Your task to perform on an android device: What's the news in Malaysia? Image 0: 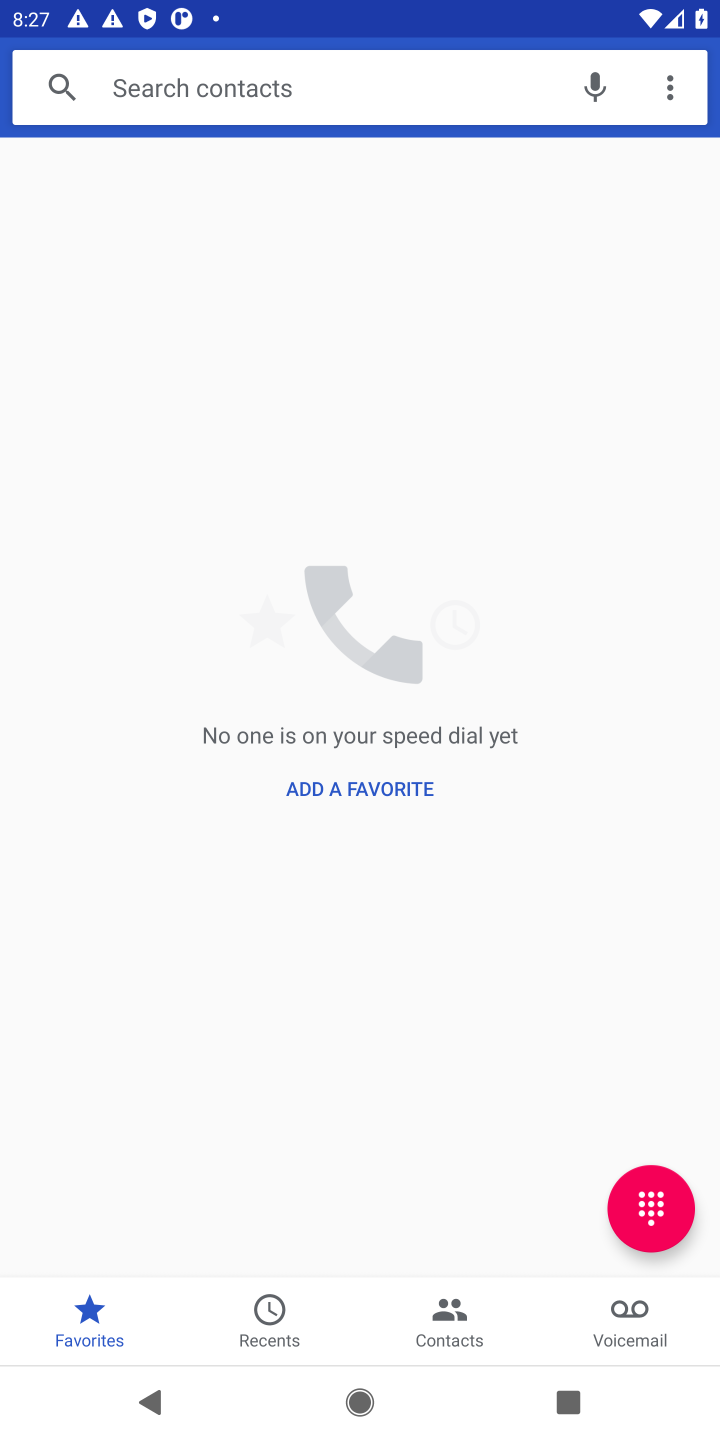
Step 0: press home button
Your task to perform on an android device: What's the news in Malaysia? Image 1: 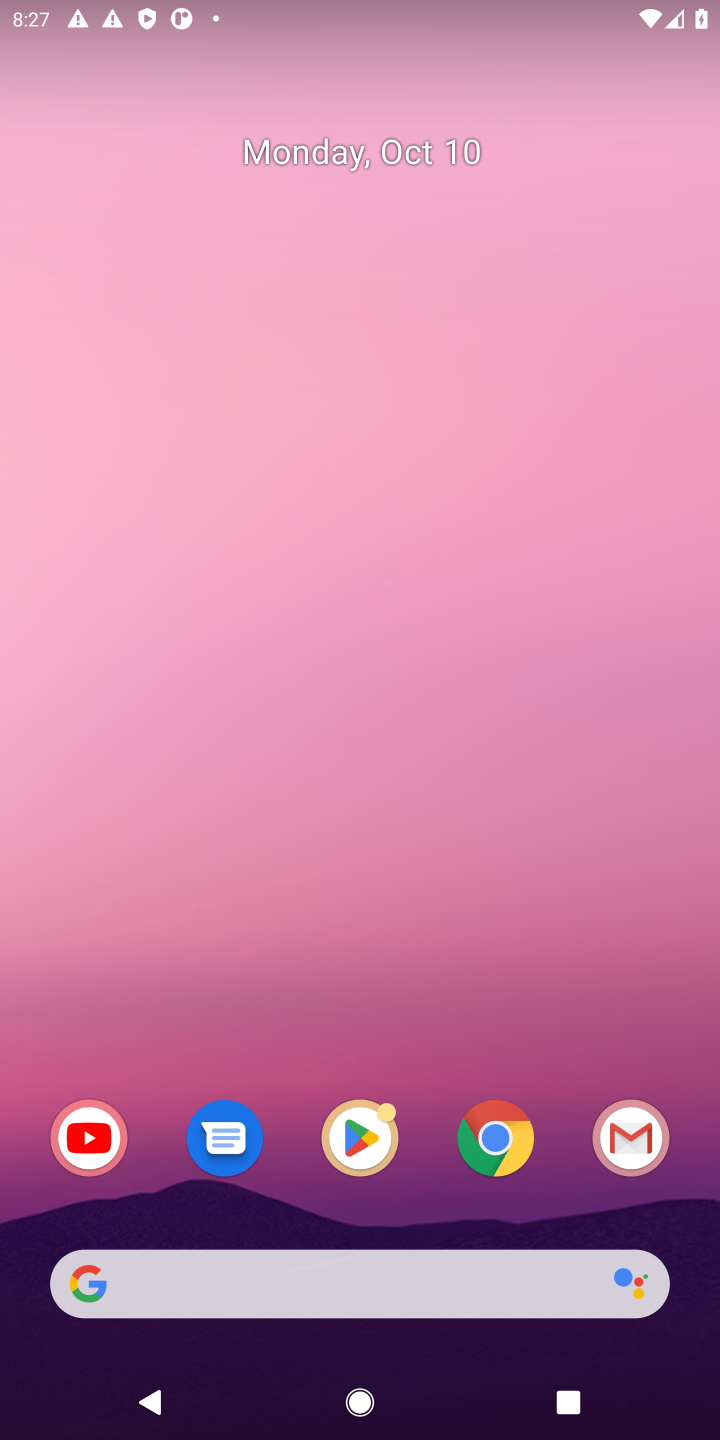
Step 1: click (497, 1145)
Your task to perform on an android device: What's the news in Malaysia? Image 2: 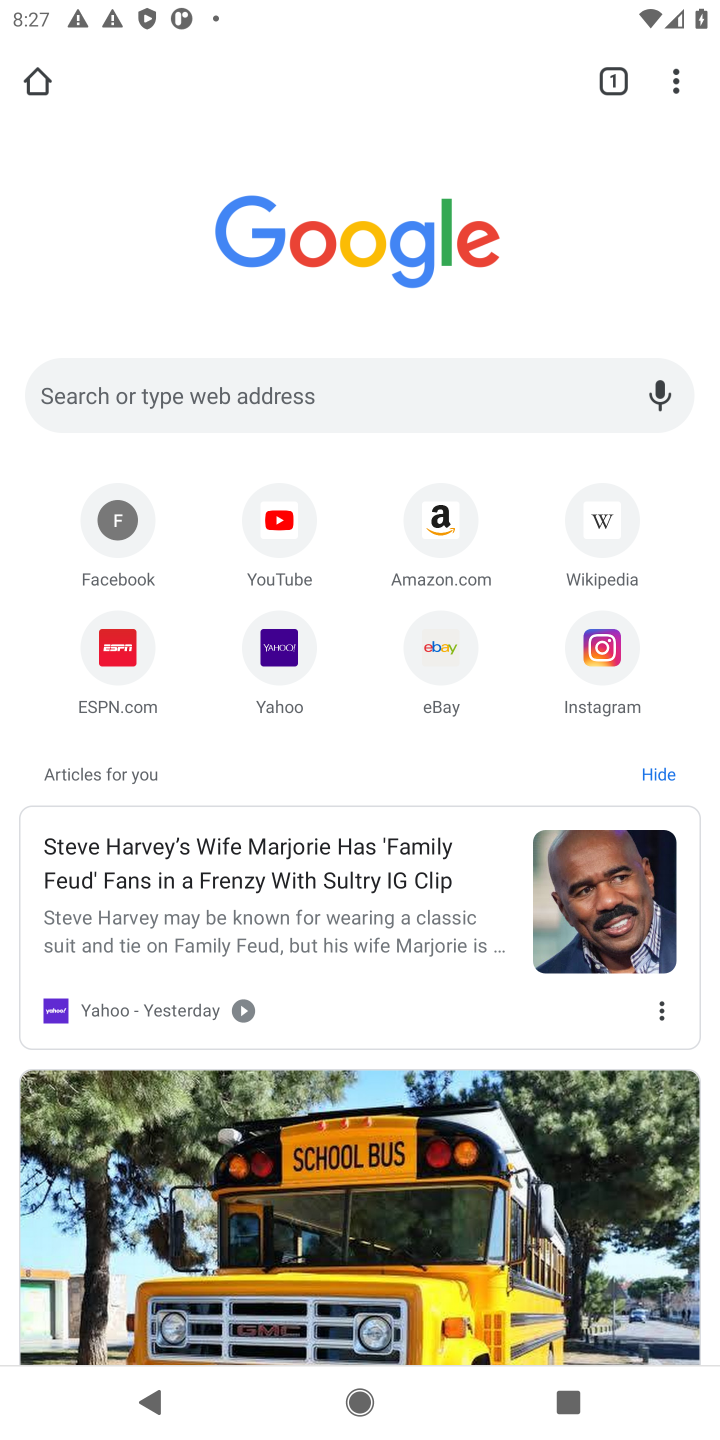
Step 2: click (324, 378)
Your task to perform on an android device: What's the news in Malaysia? Image 3: 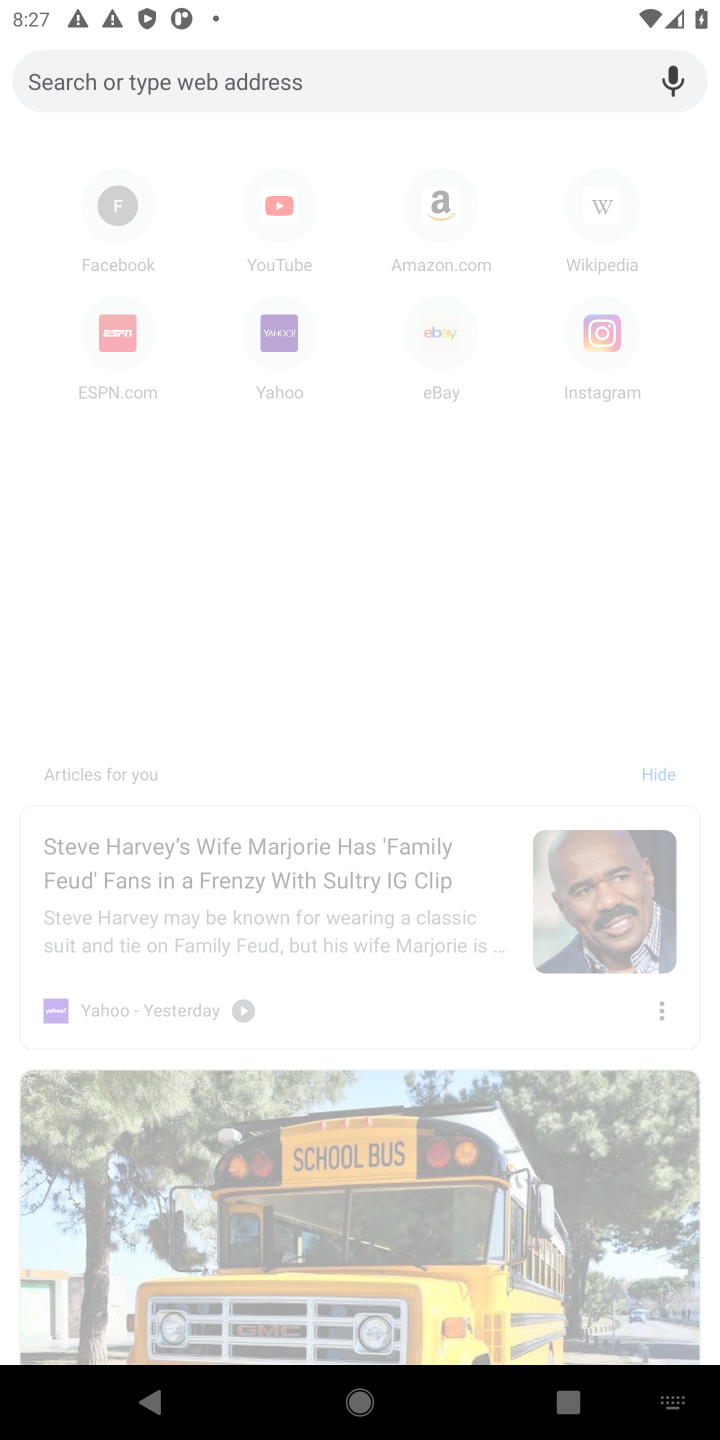
Step 3: type "What's the news in Malaysia"
Your task to perform on an android device: What's the news in Malaysia? Image 4: 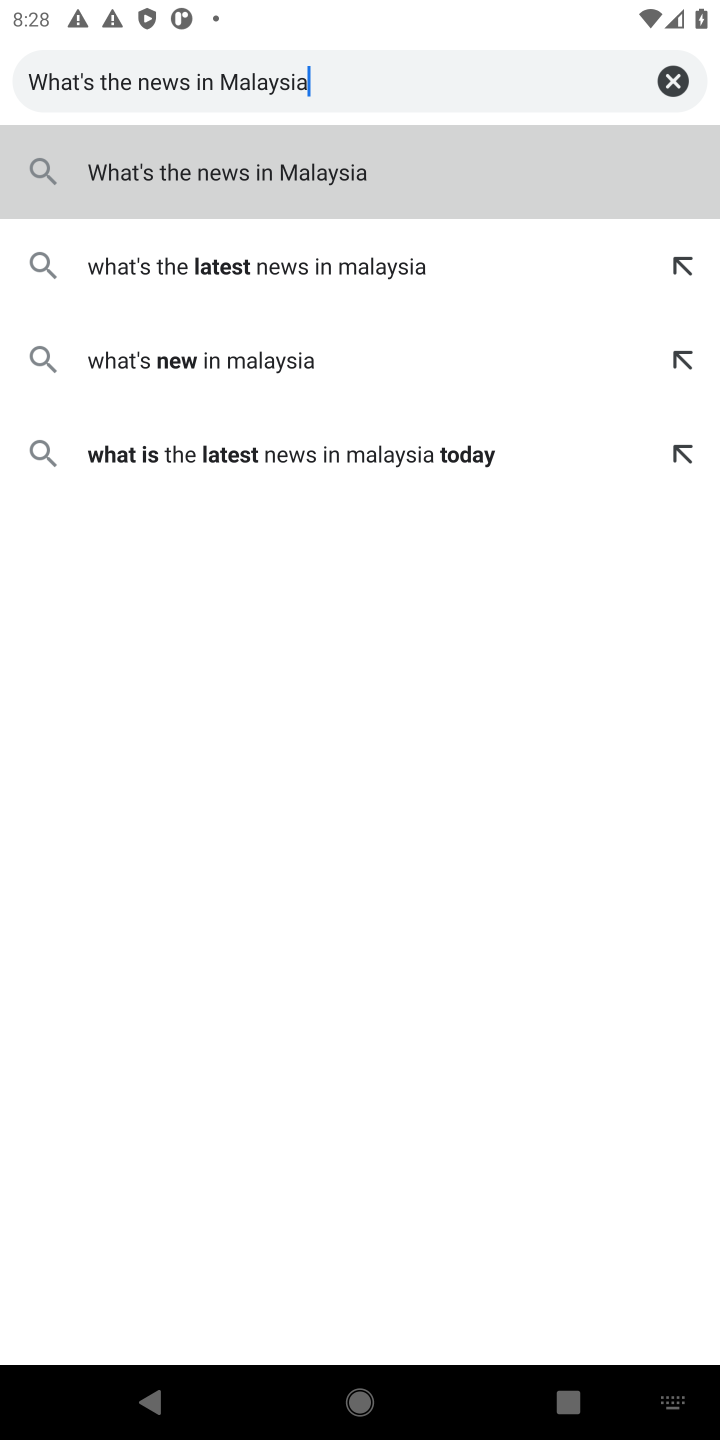
Step 4: click (288, 84)
Your task to perform on an android device: What's the news in Malaysia? Image 5: 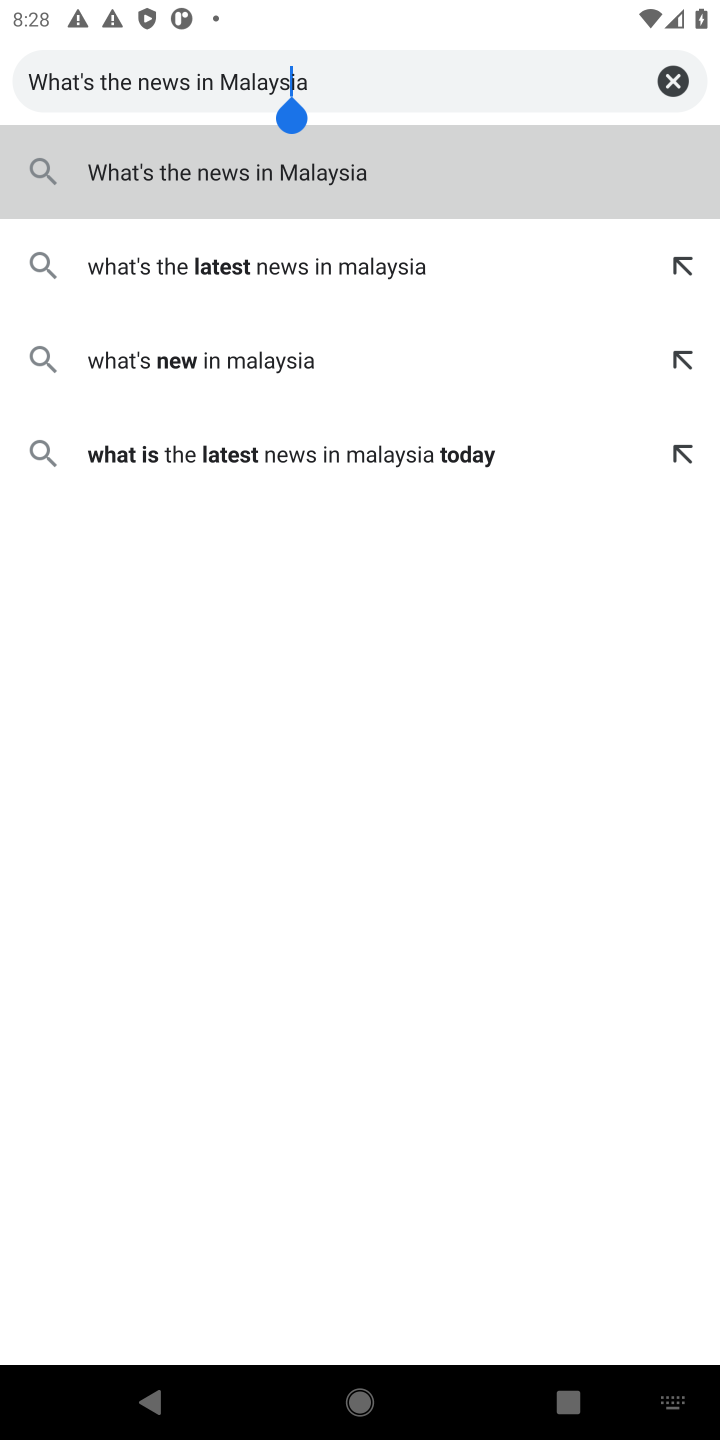
Step 5: click (328, 180)
Your task to perform on an android device: What's the news in Malaysia? Image 6: 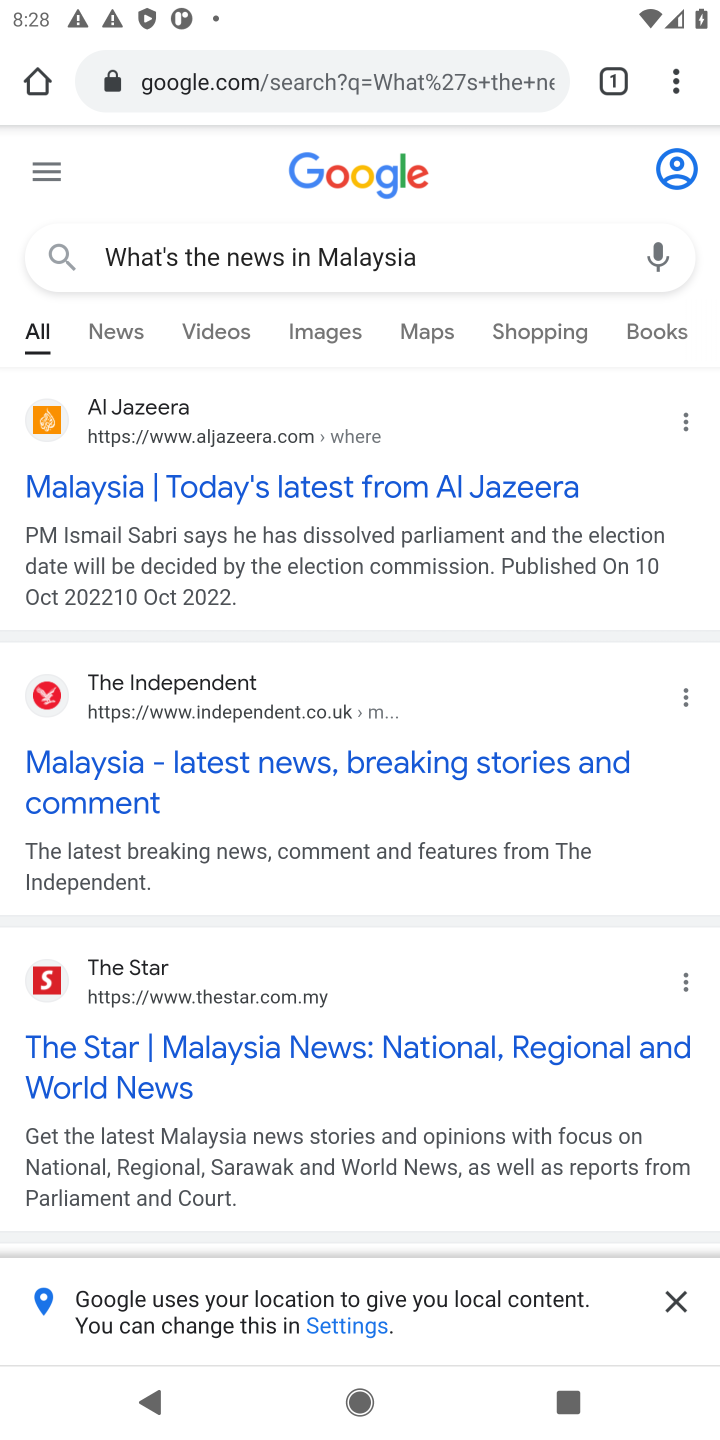
Step 6: click (418, 489)
Your task to perform on an android device: What's the news in Malaysia? Image 7: 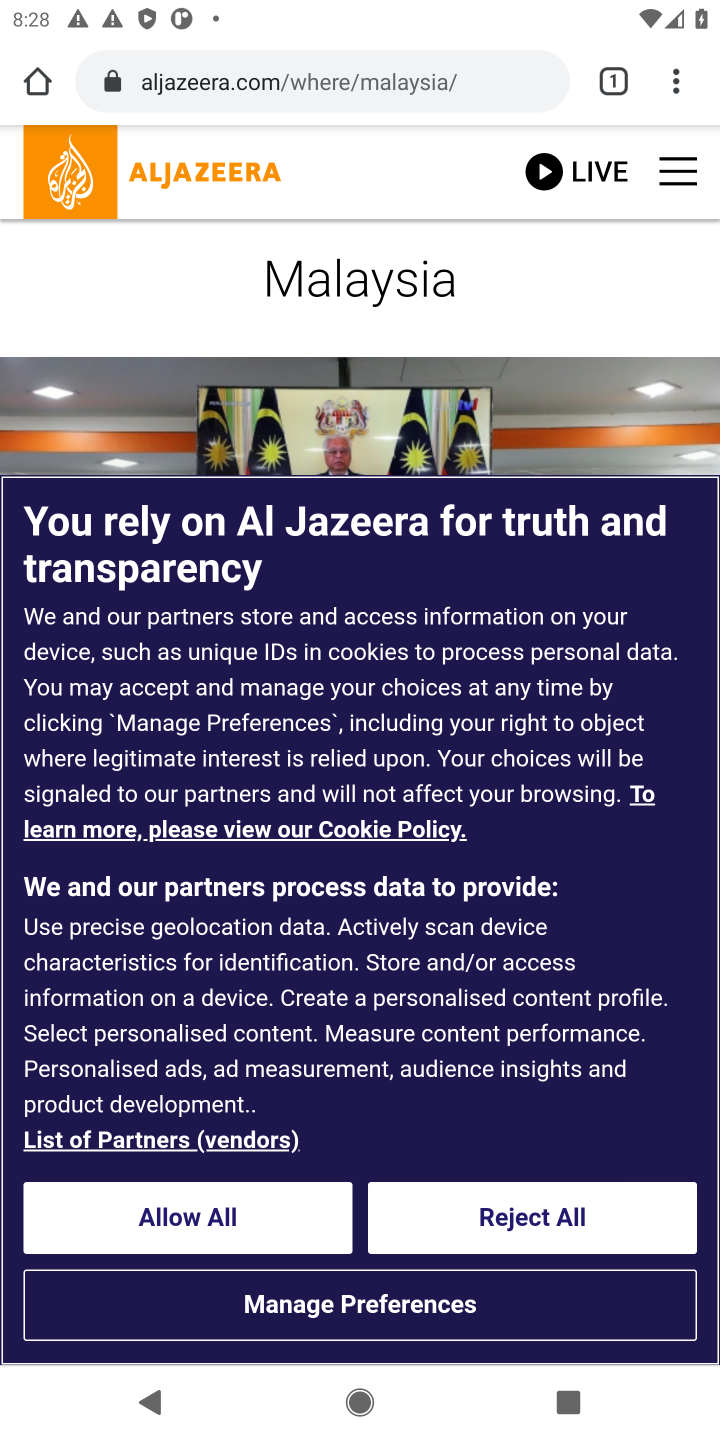
Step 7: click (177, 1218)
Your task to perform on an android device: What's the news in Malaysia? Image 8: 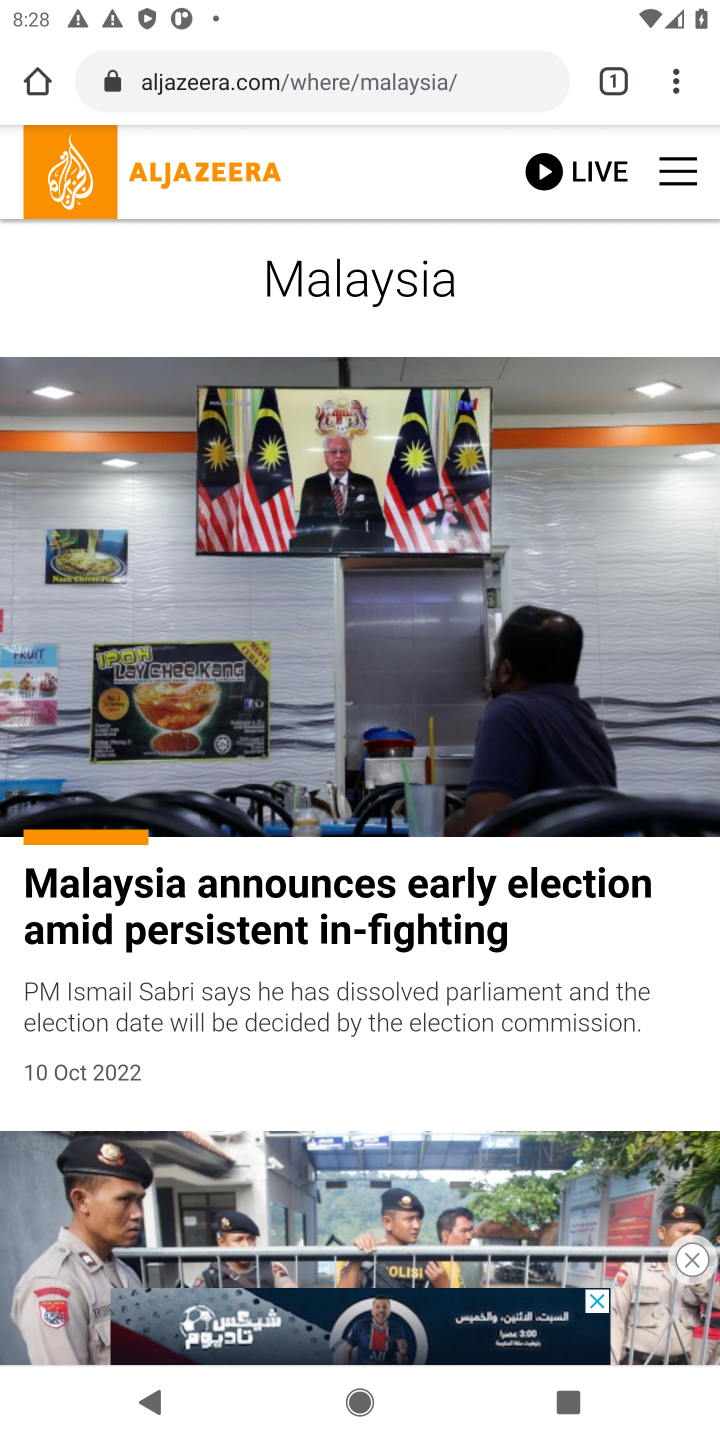
Step 8: task complete